Your task to perform on an android device: Open ESPN.com Image 0: 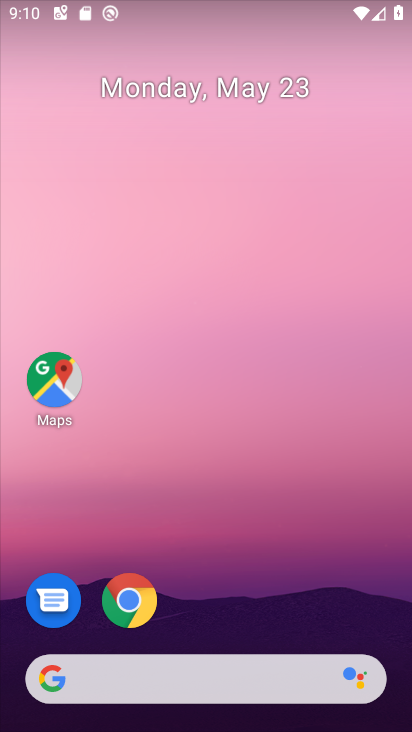
Step 0: click (129, 608)
Your task to perform on an android device: Open ESPN.com Image 1: 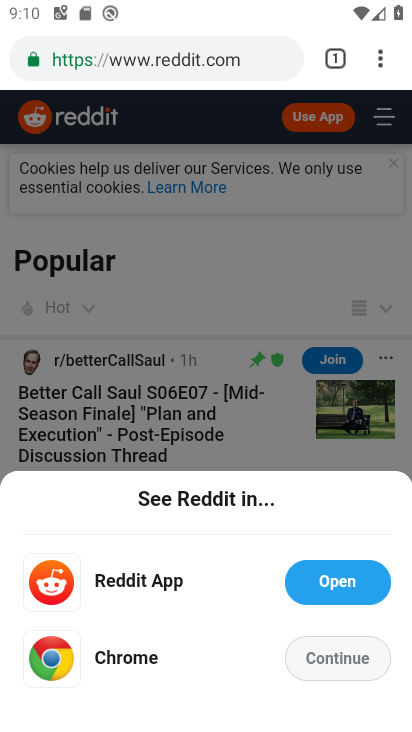
Step 1: click (381, 65)
Your task to perform on an android device: Open ESPN.com Image 2: 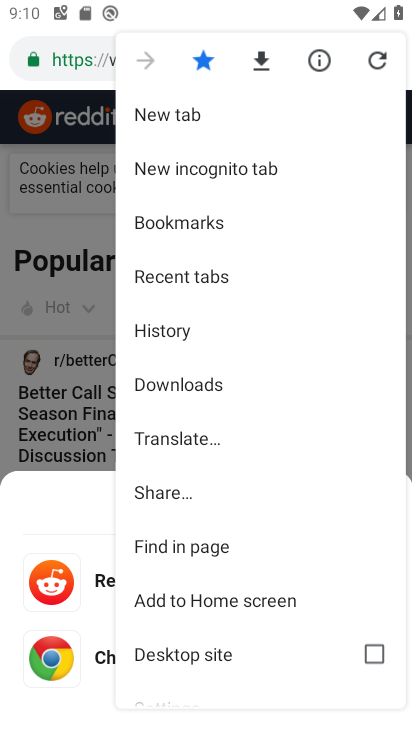
Step 2: click (173, 112)
Your task to perform on an android device: Open ESPN.com Image 3: 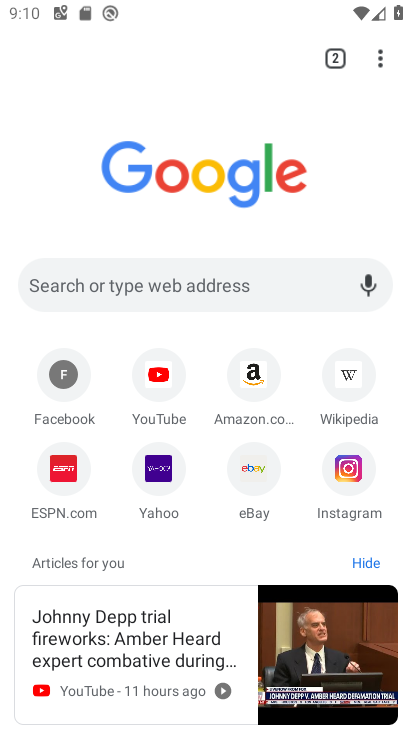
Step 3: click (60, 473)
Your task to perform on an android device: Open ESPN.com Image 4: 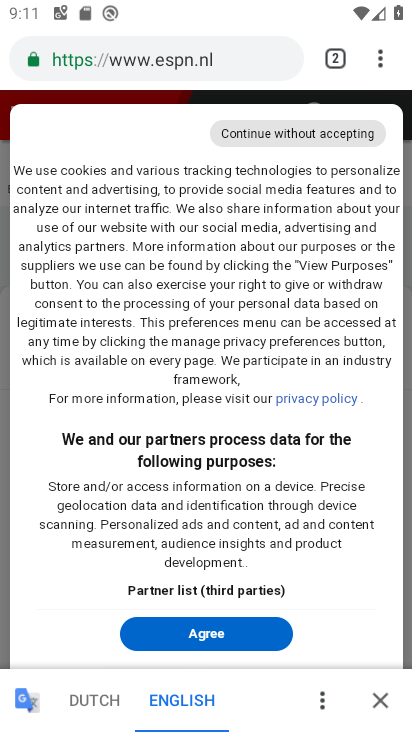
Step 4: task complete